Your task to perform on an android device: see tabs open on other devices in the chrome app Image 0: 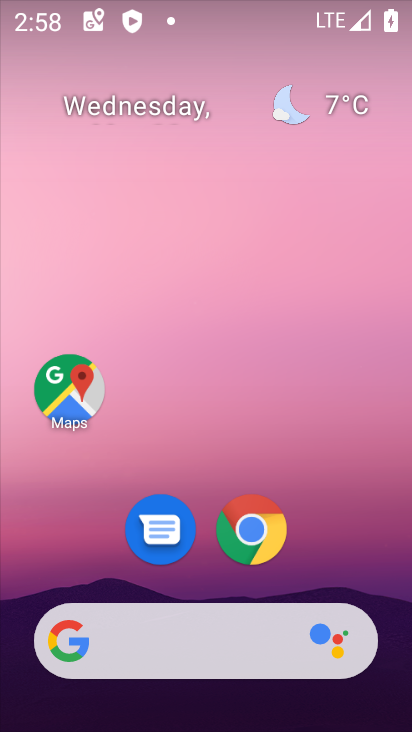
Step 0: drag from (347, 516) to (268, 81)
Your task to perform on an android device: see tabs open on other devices in the chrome app Image 1: 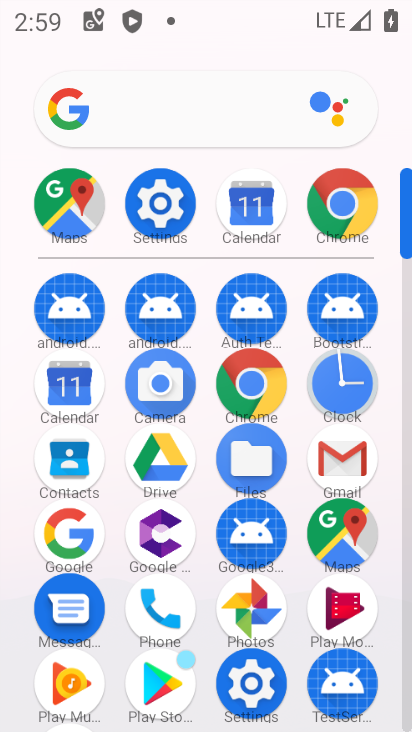
Step 1: click (350, 204)
Your task to perform on an android device: see tabs open on other devices in the chrome app Image 2: 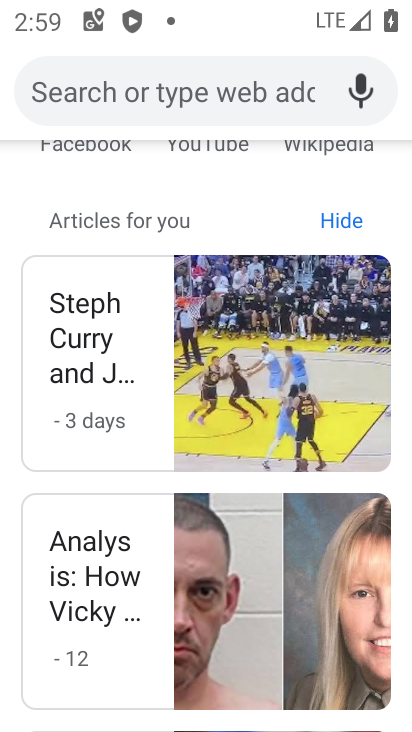
Step 2: task complete